Your task to perform on an android device: Turn on the flashlight Image 0: 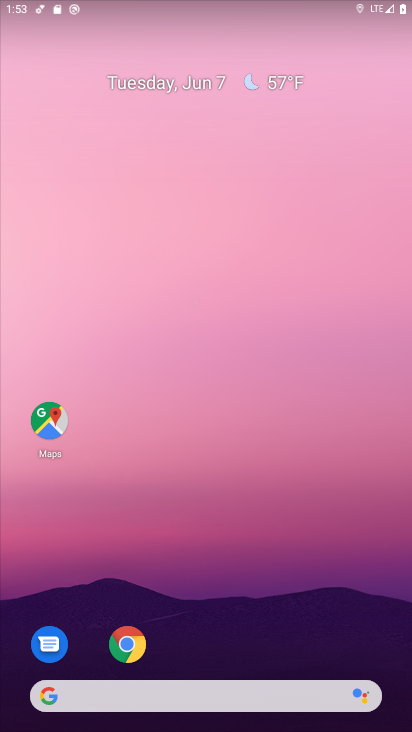
Step 0: drag from (234, 640) to (279, 1)
Your task to perform on an android device: Turn on the flashlight Image 1: 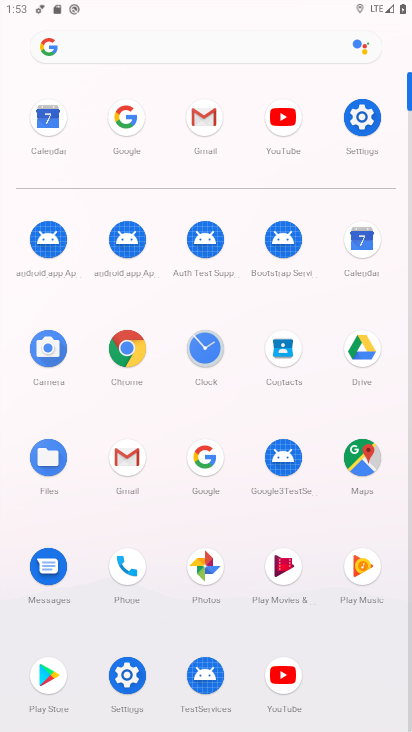
Step 1: click (360, 111)
Your task to perform on an android device: Turn on the flashlight Image 2: 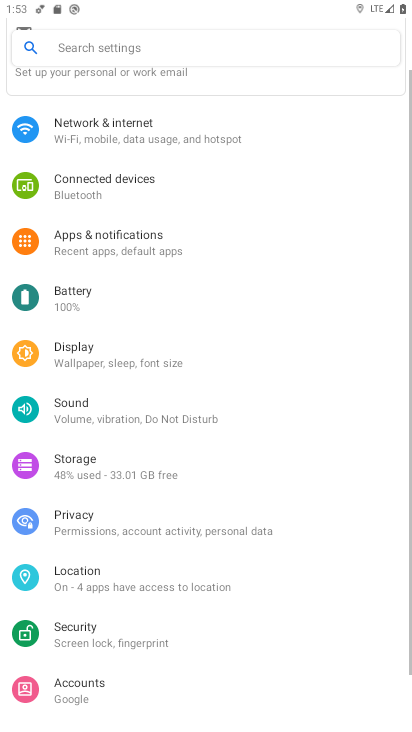
Step 2: task complete